Your task to perform on an android device: Show me popular games on the Play Store Image 0: 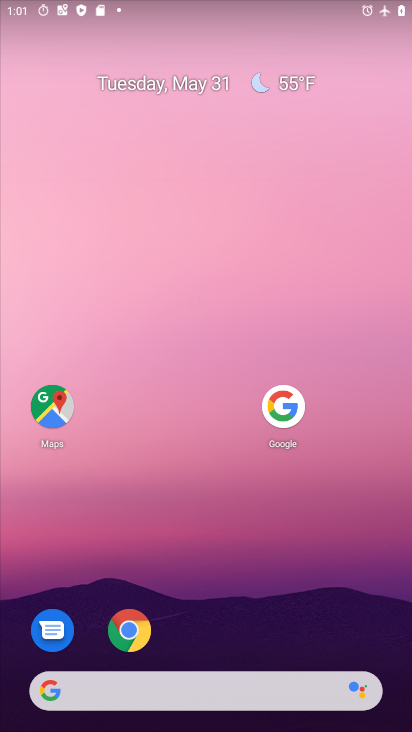
Step 0: drag from (269, 647) to (367, 168)
Your task to perform on an android device: Show me popular games on the Play Store Image 1: 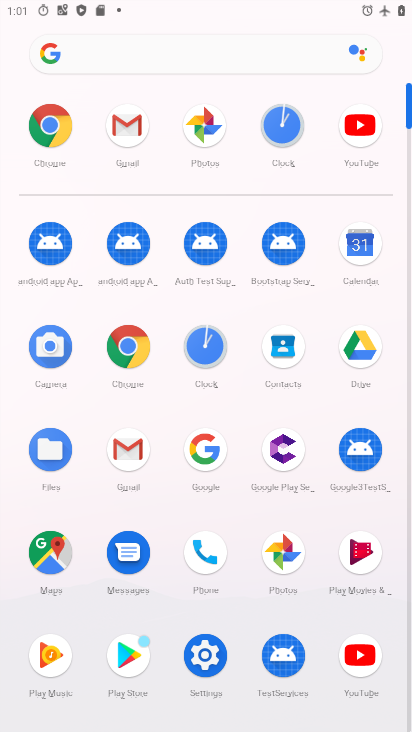
Step 1: click (129, 662)
Your task to perform on an android device: Show me popular games on the Play Store Image 2: 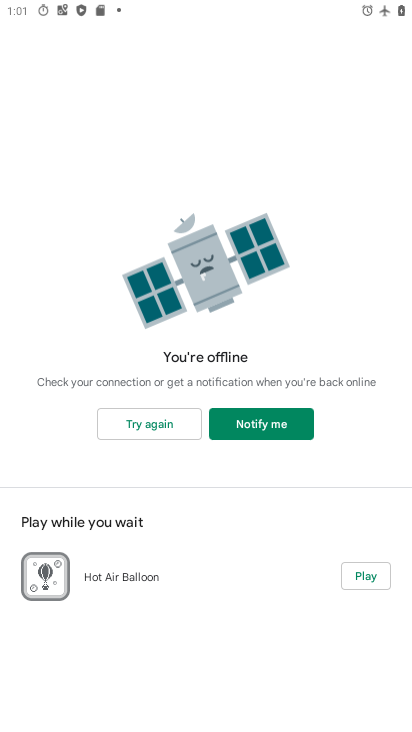
Step 2: press back button
Your task to perform on an android device: Show me popular games on the Play Store Image 3: 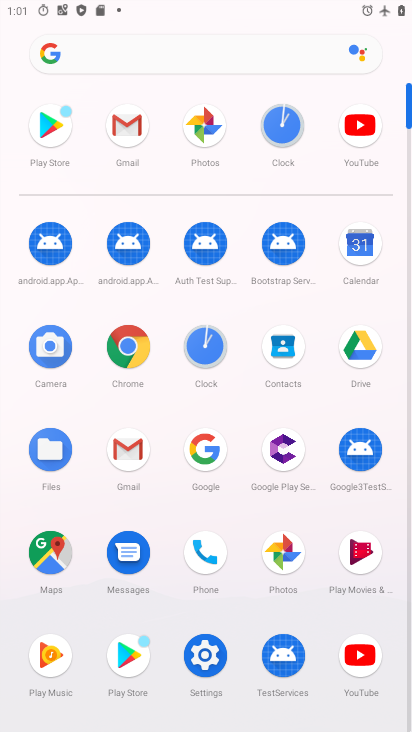
Step 3: click (123, 654)
Your task to perform on an android device: Show me popular games on the Play Store Image 4: 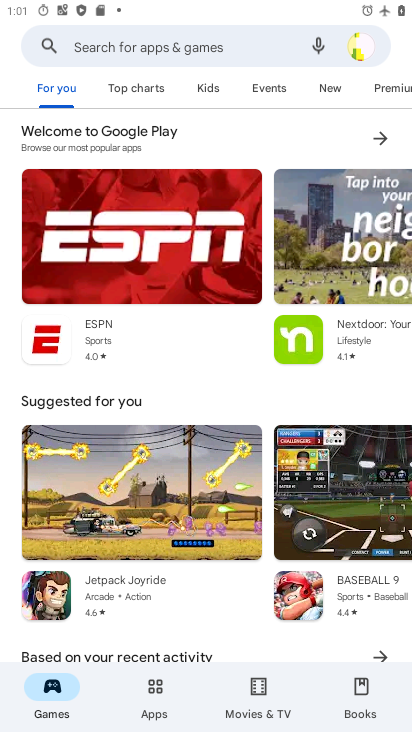
Step 4: drag from (260, 533) to (366, 148)
Your task to perform on an android device: Show me popular games on the Play Store Image 5: 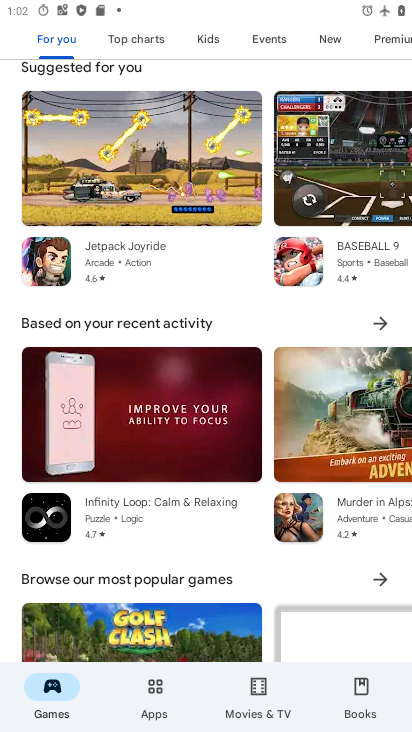
Step 5: drag from (205, 511) to (362, 133)
Your task to perform on an android device: Show me popular games on the Play Store Image 6: 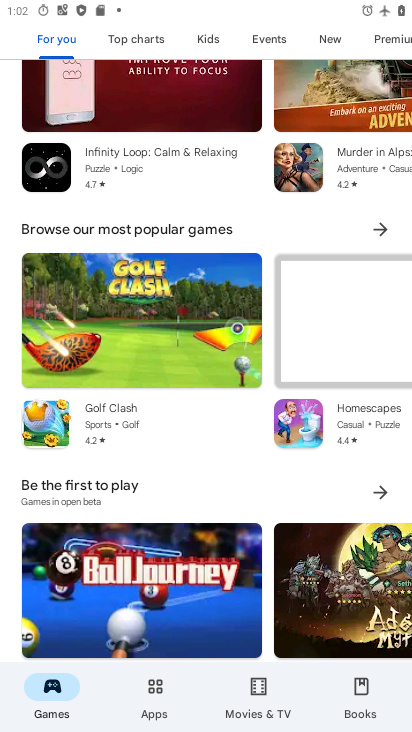
Step 6: click (224, 227)
Your task to perform on an android device: Show me popular games on the Play Store Image 7: 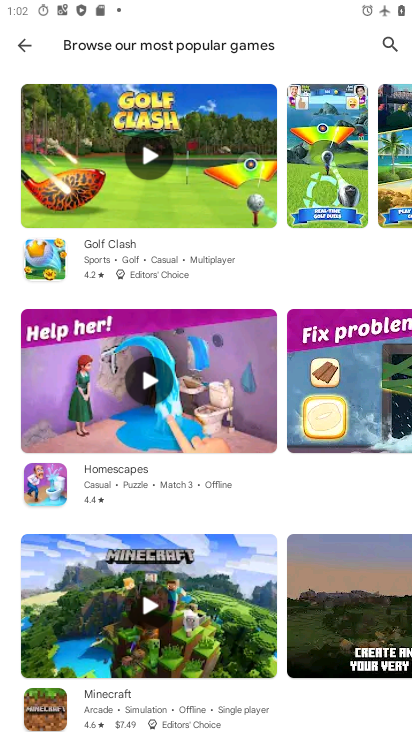
Step 7: task complete